Your task to perform on an android device: Open the phone app and click the voicemail tab. Image 0: 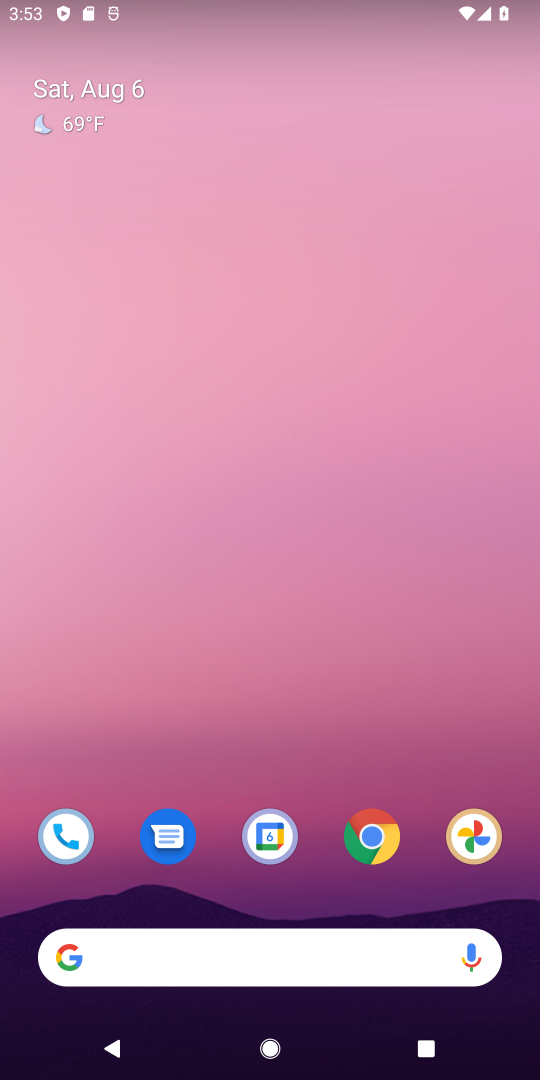
Step 0: click (495, 862)
Your task to perform on an android device: Open the phone app and click the voicemail tab. Image 1: 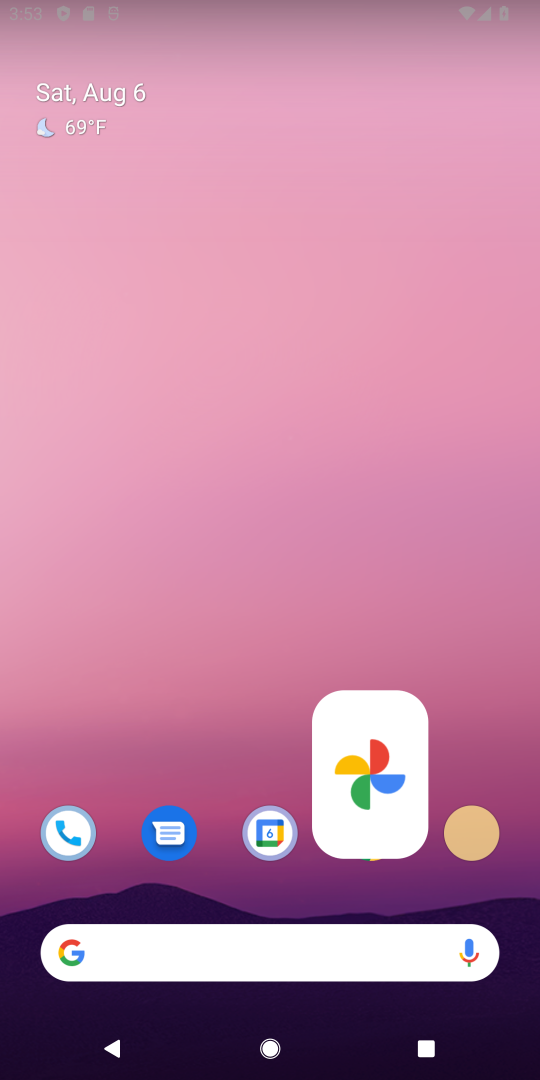
Step 1: drag from (290, 924) to (527, 507)
Your task to perform on an android device: Open the phone app and click the voicemail tab. Image 2: 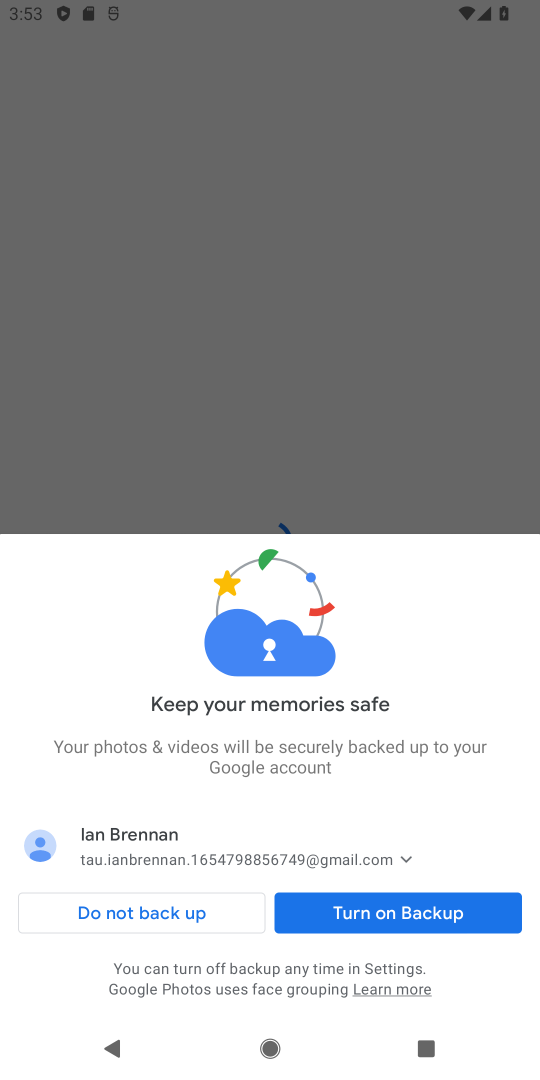
Step 2: press home button
Your task to perform on an android device: Open the phone app and click the voicemail tab. Image 3: 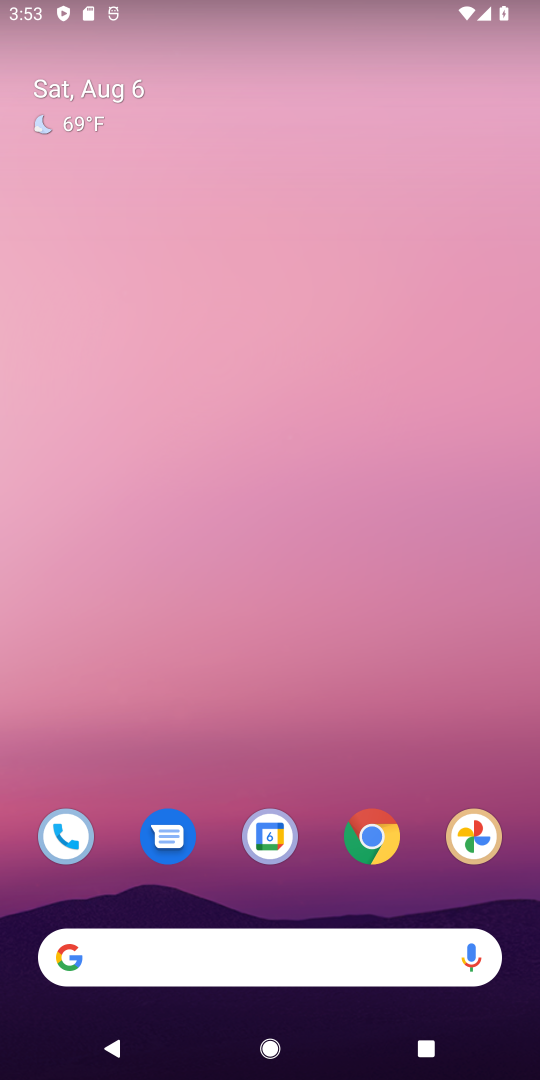
Step 3: click (90, 865)
Your task to perform on an android device: Open the phone app and click the voicemail tab. Image 4: 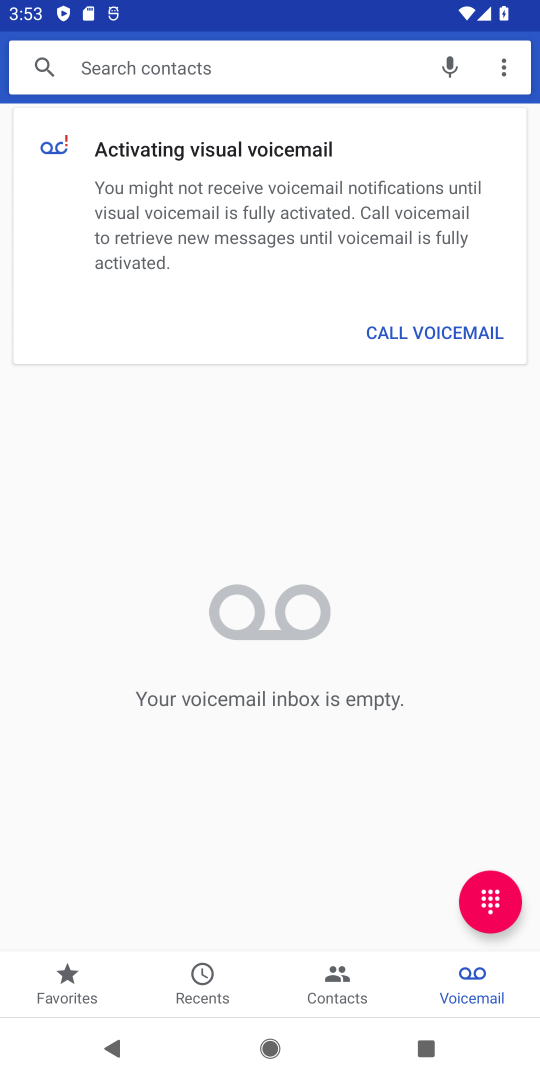
Step 4: click (466, 981)
Your task to perform on an android device: Open the phone app and click the voicemail tab. Image 5: 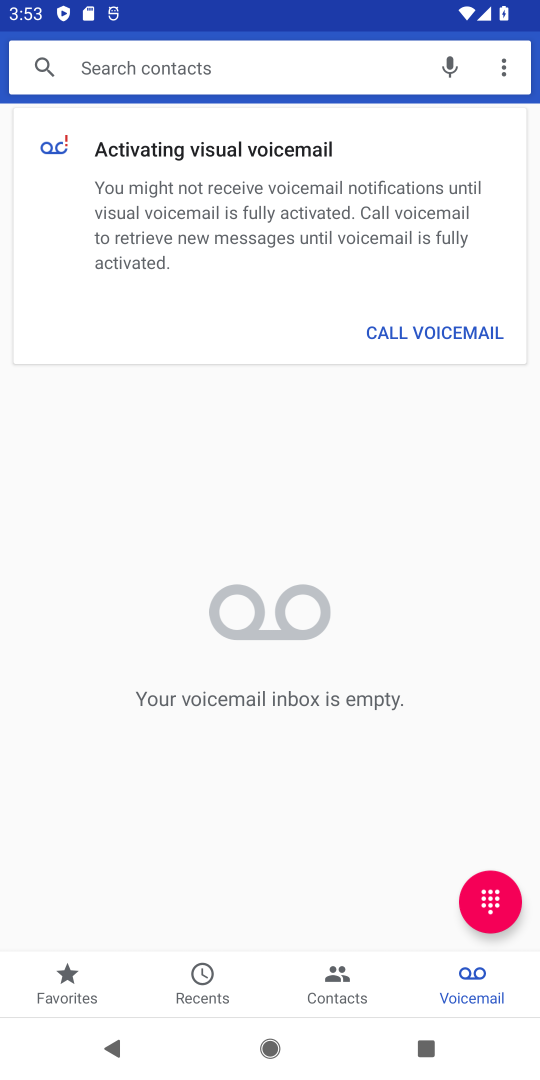
Step 5: task complete